Your task to perform on an android device: Open calendar and show me the second week of next month Image 0: 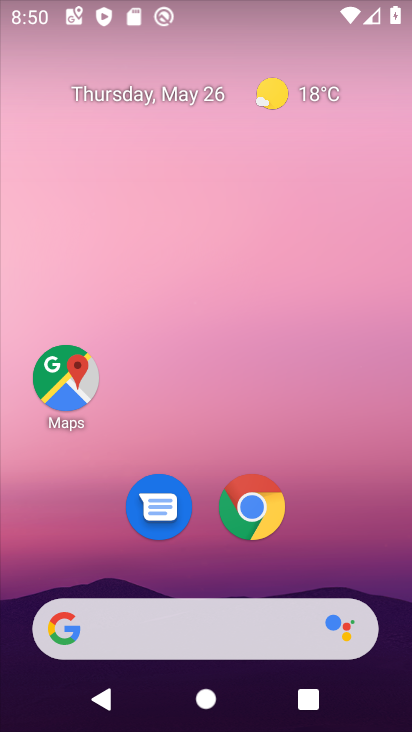
Step 0: drag from (307, 444) to (226, 19)
Your task to perform on an android device: Open calendar and show me the second week of next month Image 1: 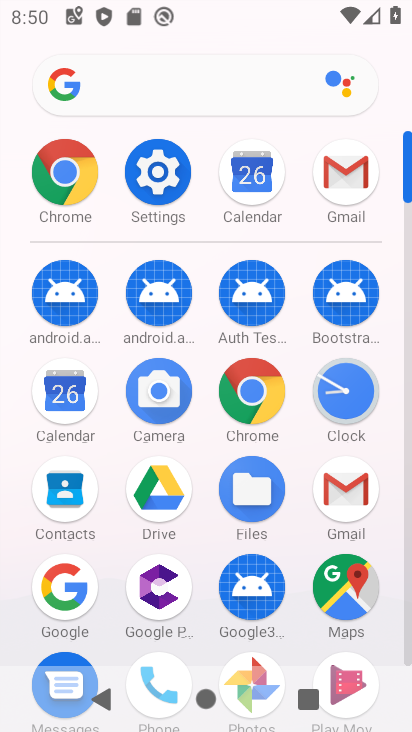
Step 1: click (71, 407)
Your task to perform on an android device: Open calendar and show me the second week of next month Image 2: 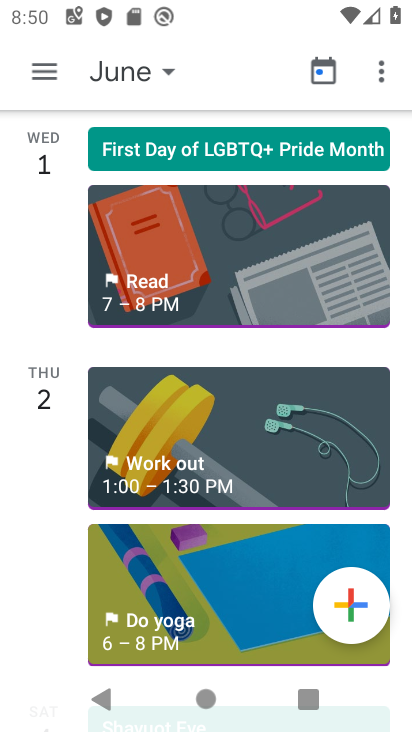
Step 2: click (31, 79)
Your task to perform on an android device: Open calendar and show me the second week of next month Image 3: 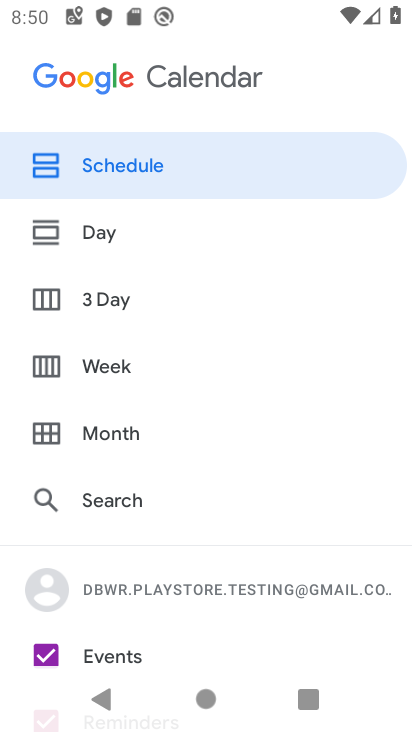
Step 3: click (125, 435)
Your task to perform on an android device: Open calendar and show me the second week of next month Image 4: 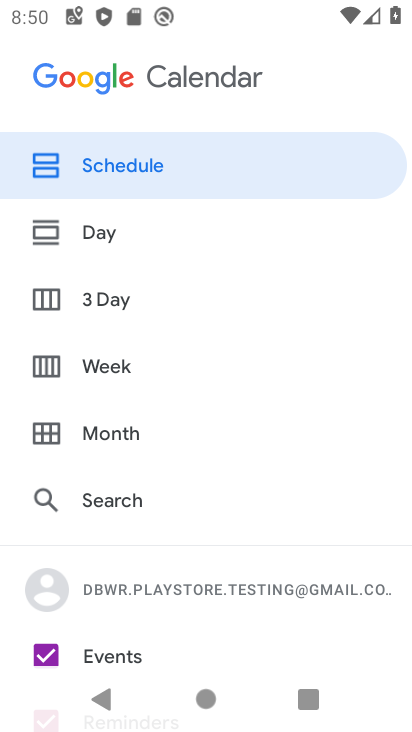
Step 4: click (125, 435)
Your task to perform on an android device: Open calendar and show me the second week of next month Image 5: 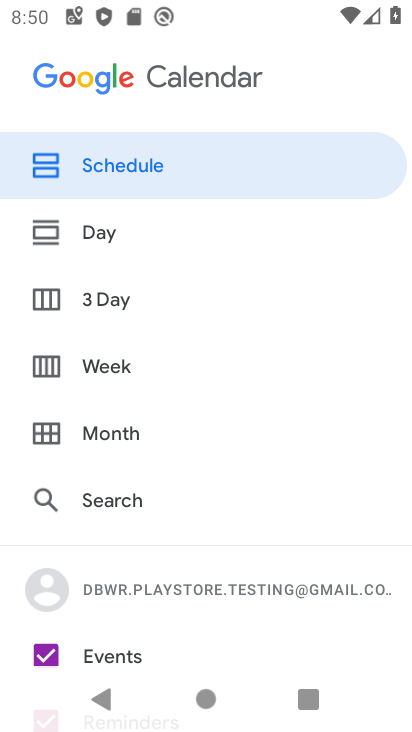
Step 5: click (123, 437)
Your task to perform on an android device: Open calendar and show me the second week of next month Image 6: 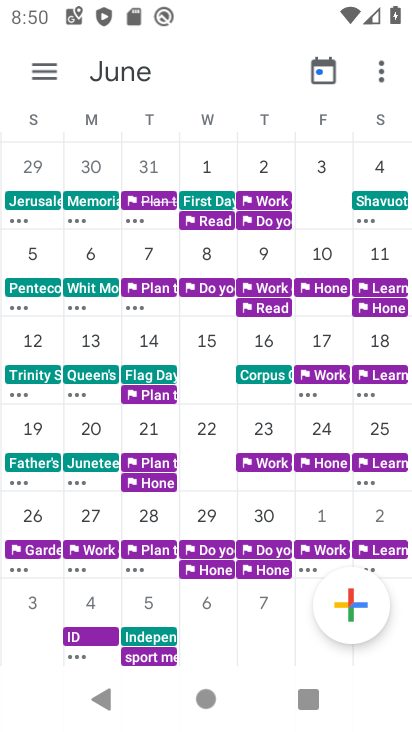
Step 6: click (144, 267)
Your task to perform on an android device: Open calendar and show me the second week of next month Image 7: 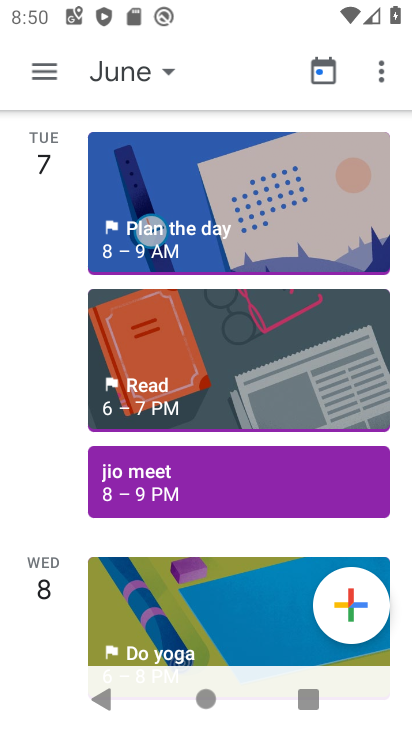
Step 7: task complete